Your task to perform on an android device: turn on location history Image 0: 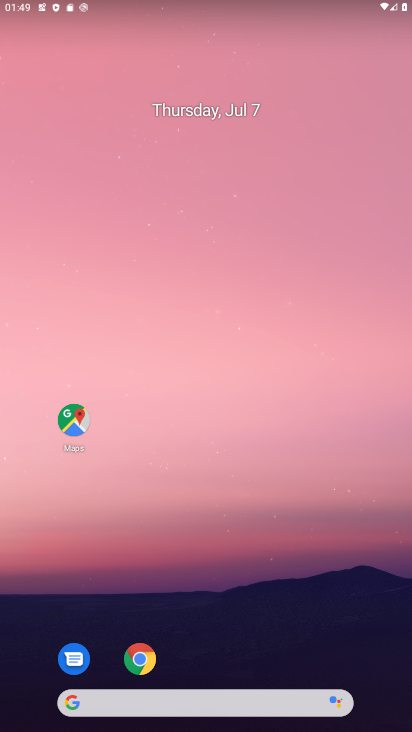
Step 0: drag from (212, 664) to (262, 135)
Your task to perform on an android device: turn on location history Image 1: 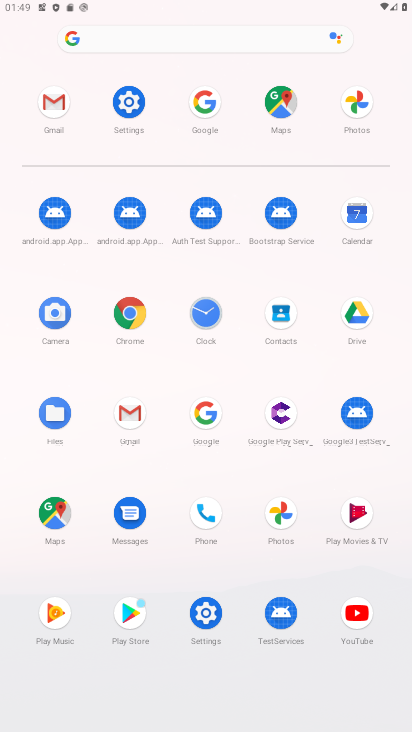
Step 1: click (126, 104)
Your task to perform on an android device: turn on location history Image 2: 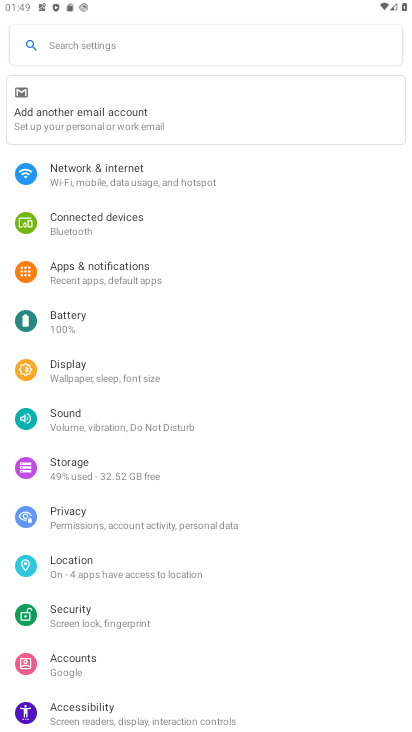
Step 2: click (69, 568)
Your task to perform on an android device: turn on location history Image 3: 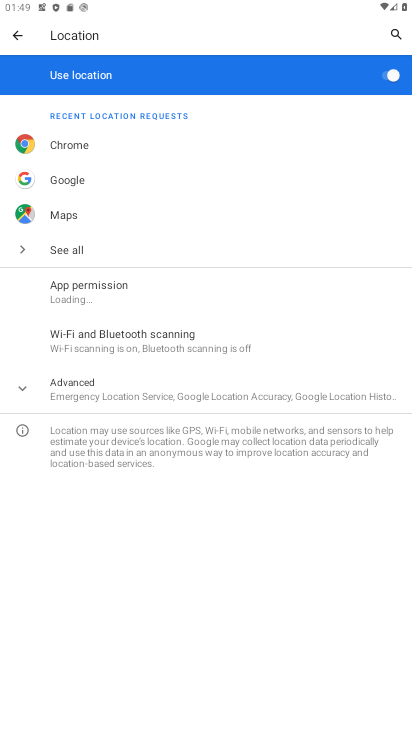
Step 3: click (103, 399)
Your task to perform on an android device: turn on location history Image 4: 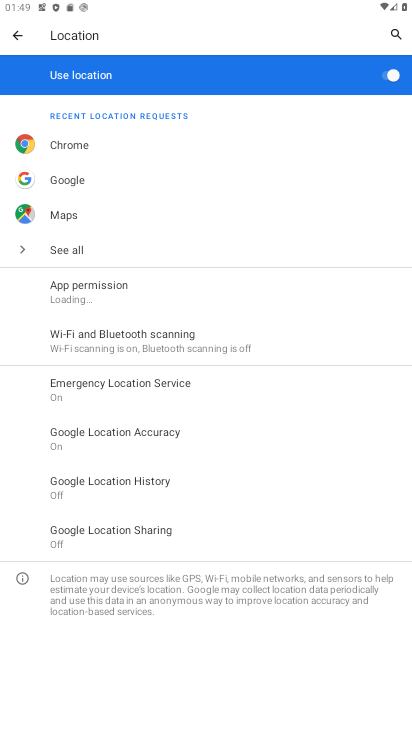
Step 4: click (137, 470)
Your task to perform on an android device: turn on location history Image 5: 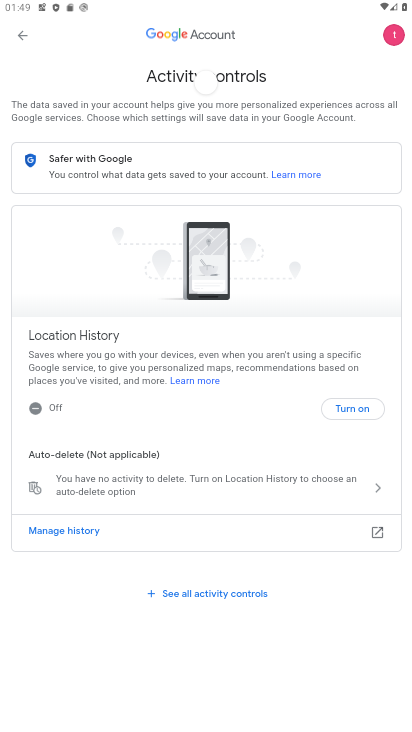
Step 5: click (346, 406)
Your task to perform on an android device: turn on location history Image 6: 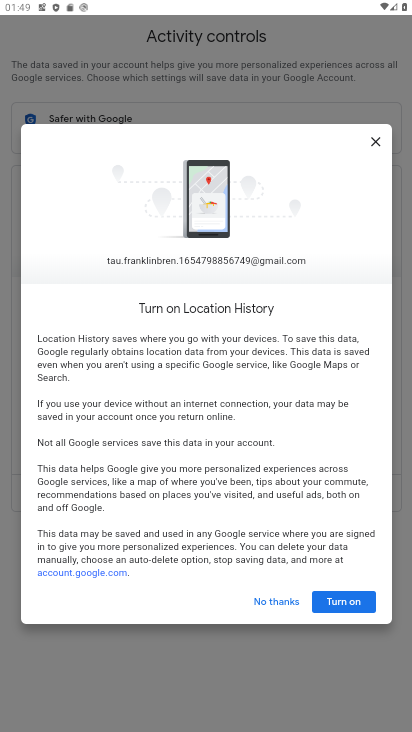
Step 6: click (349, 602)
Your task to perform on an android device: turn on location history Image 7: 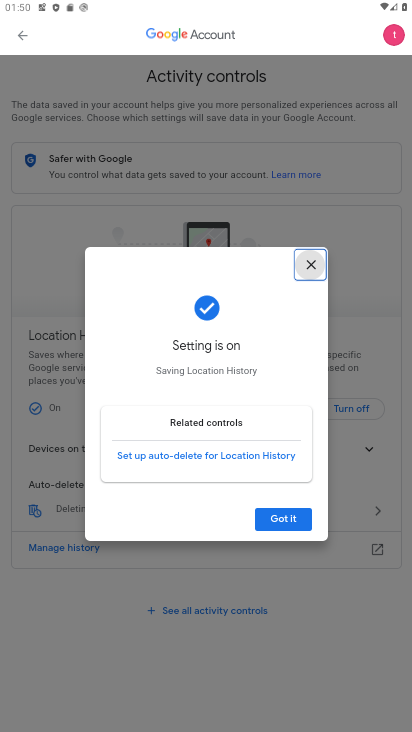
Step 7: click (279, 520)
Your task to perform on an android device: turn on location history Image 8: 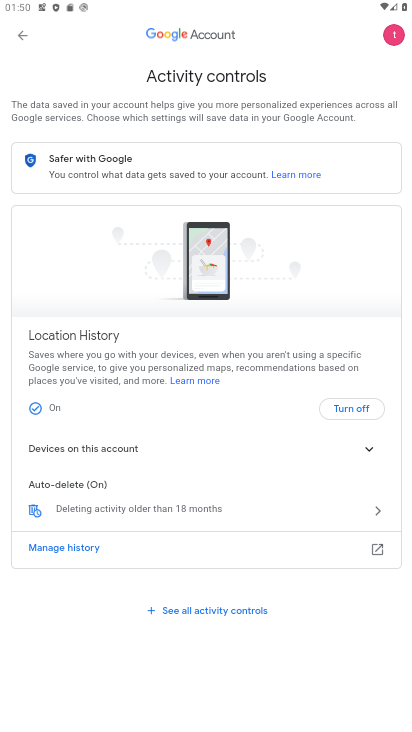
Step 8: task complete